Your task to perform on an android device: Go to calendar. Show me events next week Image 0: 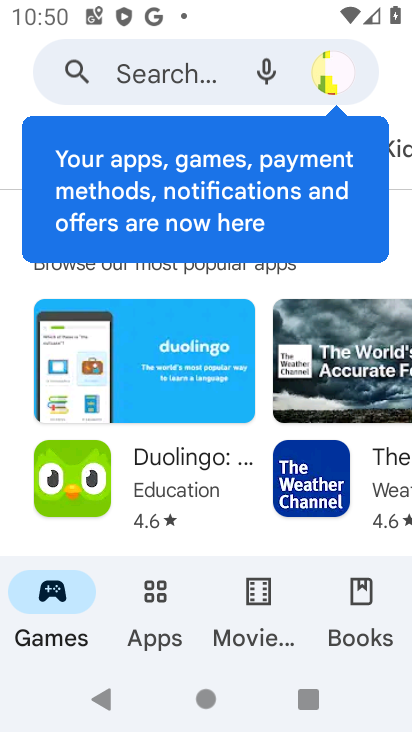
Step 0: press home button
Your task to perform on an android device: Go to calendar. Show me events next week Image 1: 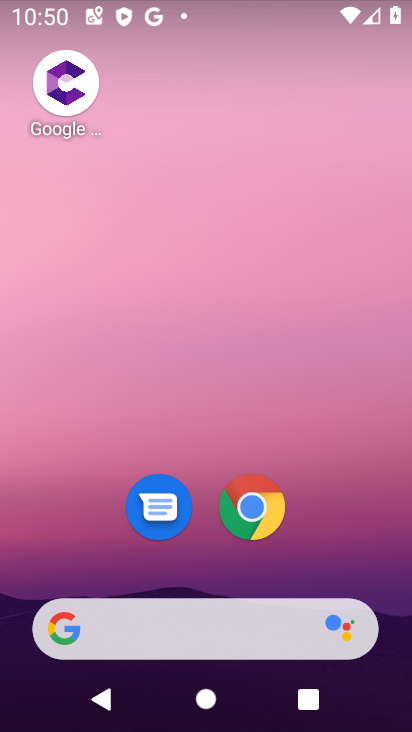
Step 1: drag from (227, 678) to (223, 79)
Your task to perform on an android device: Go to calendar. Show me events next week Image 2: 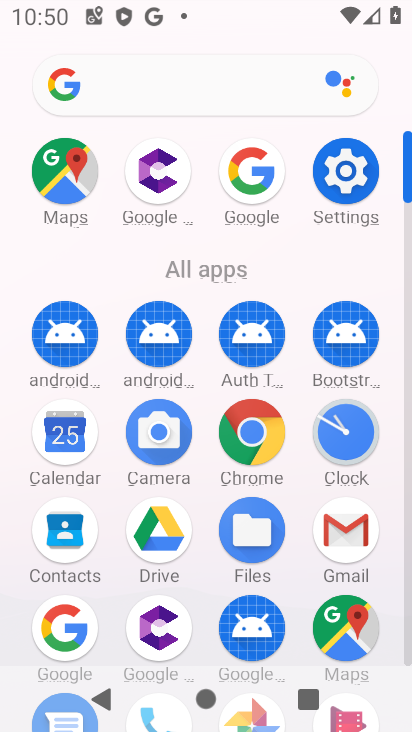
Step 2: click (66, 437)
Your task to perform on an android device: Go to calendar. Show me events next week Image 3: 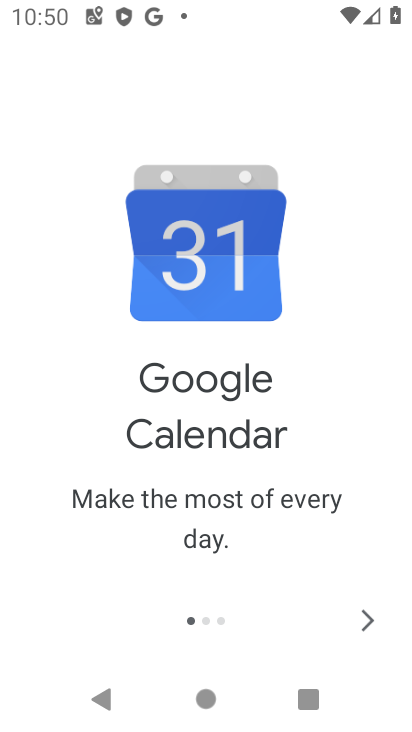
Step 3: click (368, 614)
Your task to perform on an android device: Go to calendar. Show me events next week Image 4: 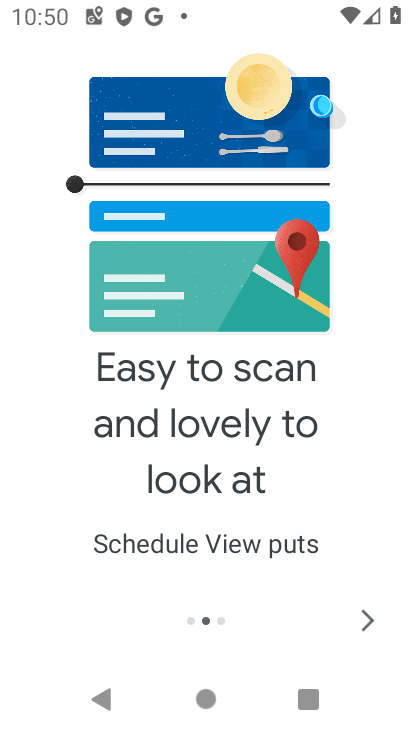
Step 4: click (368, 614)
Your task to perform on an android device: Go to calendar. Show me events next week Image 5: 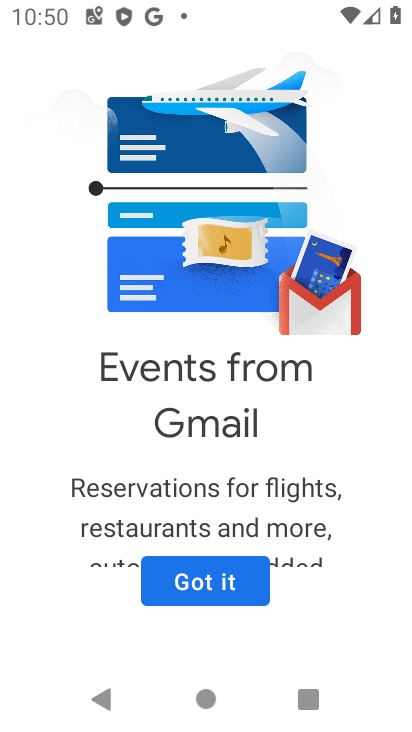
Step 5: click (201, 579)
Your task to perform on an android device: Go to calendar. Show me events next week Image 6: 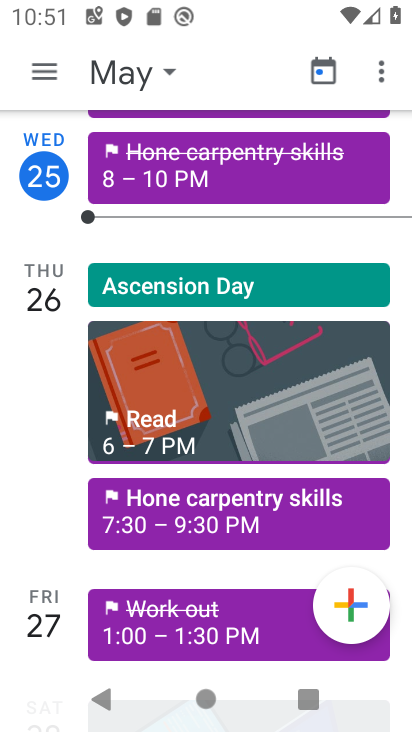
Step 6: click (160, 68)
Your task to perform on an android device: Go to calendar. Show me events next week Image 7: 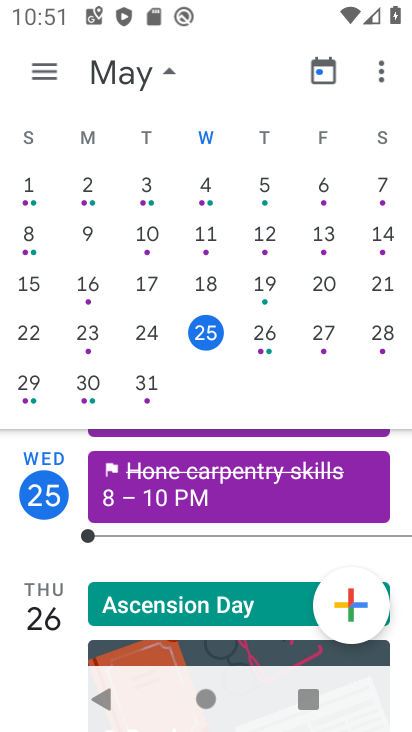
Step 7: click (89, 385)
Your task to perform on an android device: Go to calendar. Show me events next week Image 8: 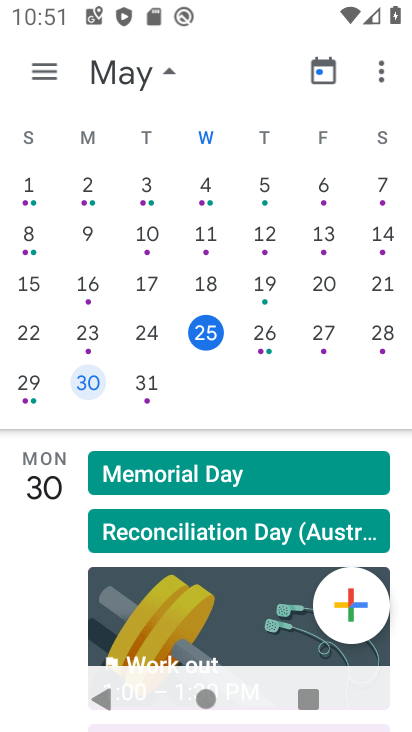
Step 8: click (49, 66)
Your task to perform on an android device: Go to calendar. Show me events next week Image 9: 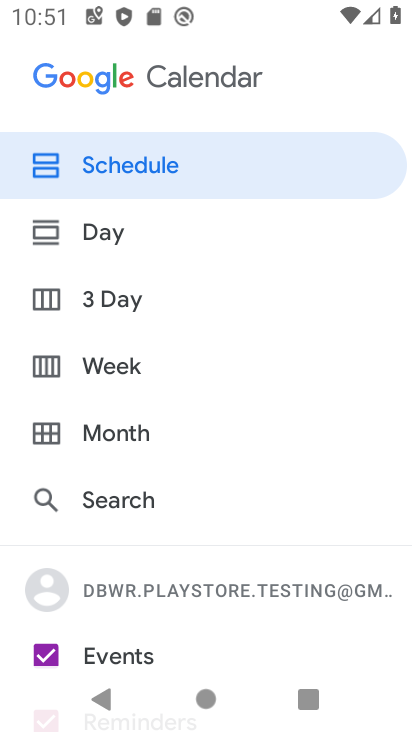
Step 9: click (105, 362)
Your task to perform on an android device: Go to calendar. Show me events next week Image 10: 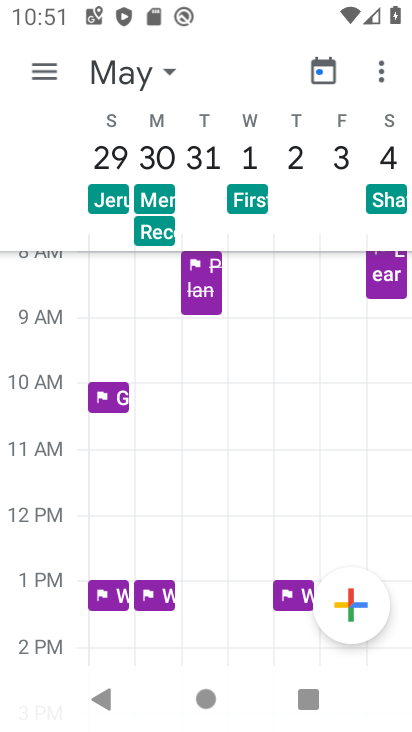
Step 10: task complete